Your task to perform on an android device: Is it going to rain today? Image 0: 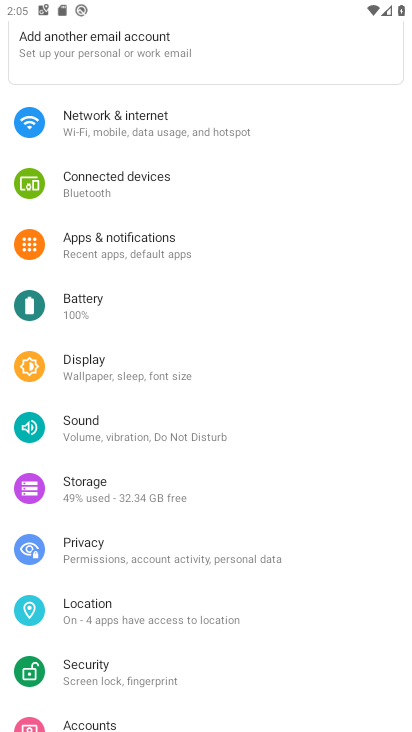
Step 0: press home button
Your task to perform on an android device: Is it going to rain today? Image 1: 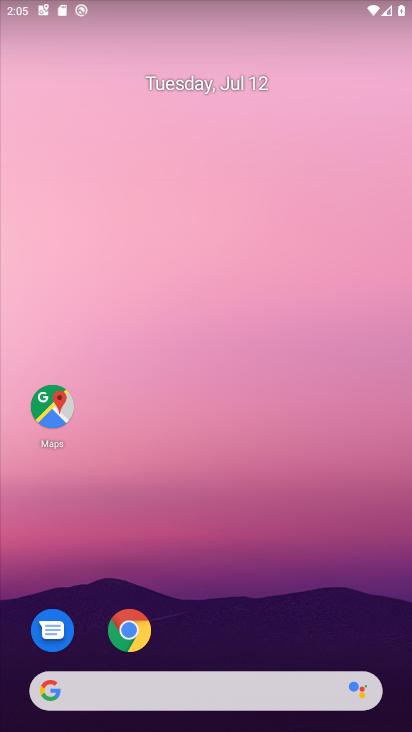
Step 1: drag from (220, 621) to (253, 174)
Your task to perform on an android device: Is it going to rain today? Image 2: 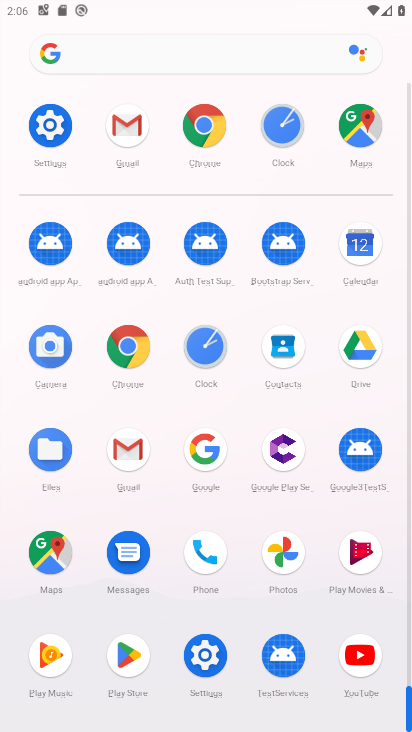
Step 2: click (207, 457)
Your task to perform on an android device: Is it going to rain today? Image 3: 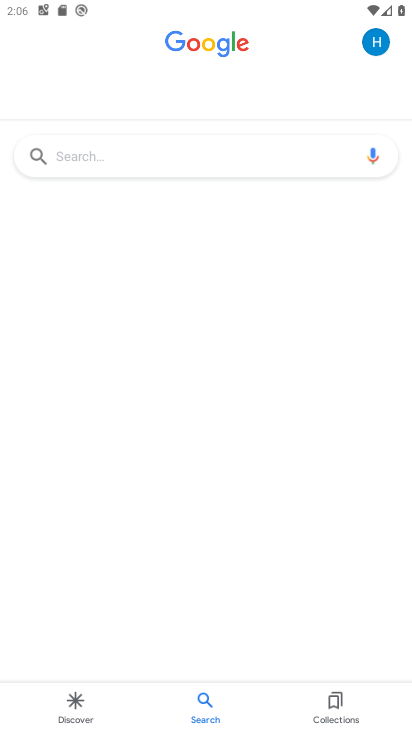
Step 3: click (209, 139)
Your task to perform on an android device: Is it going to rain today? Image 4: 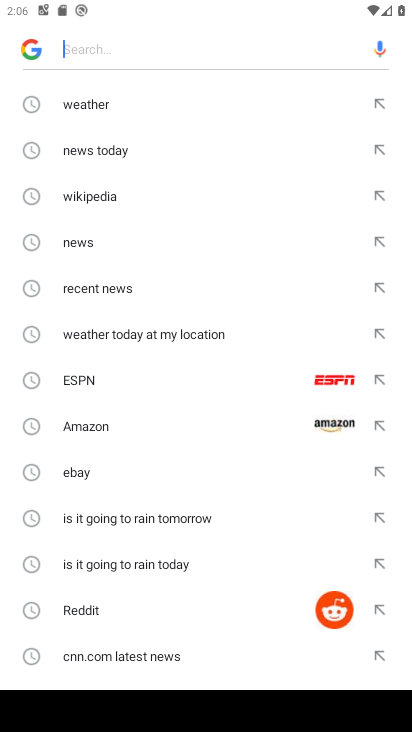
Step 4: click (132, 105)
Your task to perform on an android device: Is it going to rain today? Image 5: 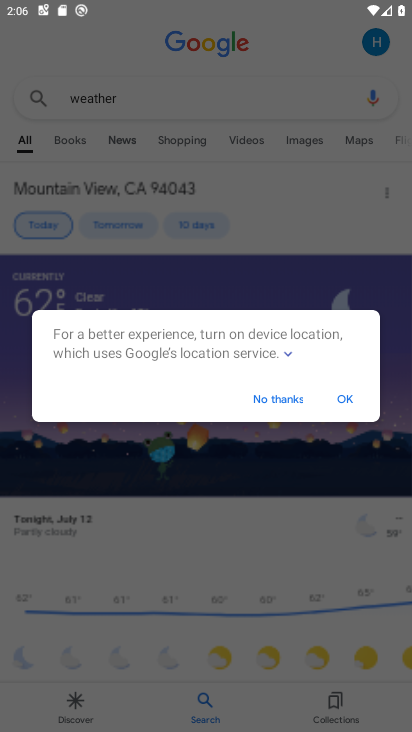
Step 5: click (340, 403)
Your task to perform on an android device: Is it going to rain today? Image 6: 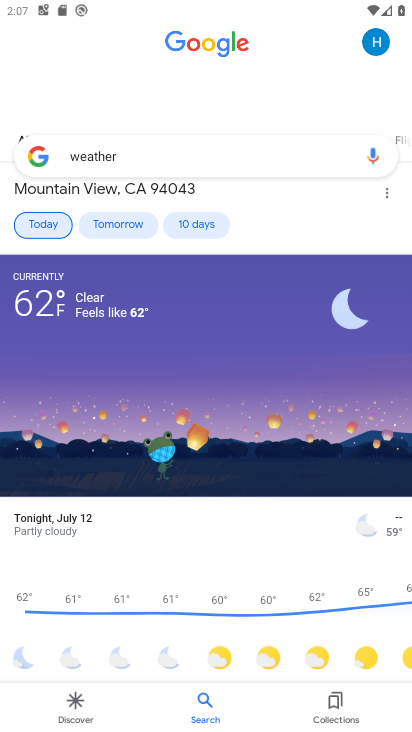
Step 6: task complete